Your task to perform on an android device: stop showing notifications on the lock screen Image 0: 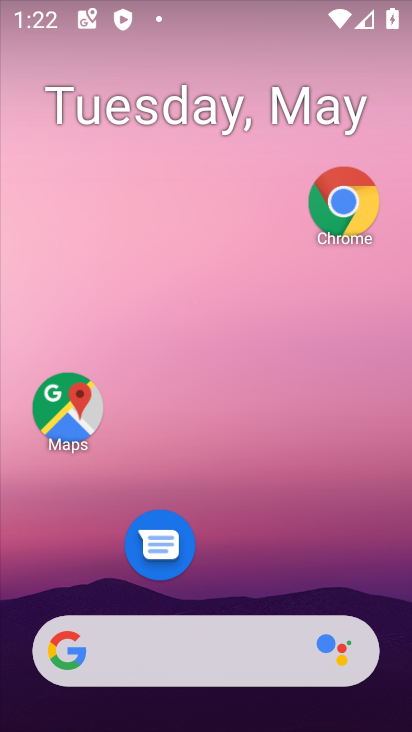
Step 0: click (403, 262)
Your task to perform on an android device: stop showing notifications on the lock screen Image 1: 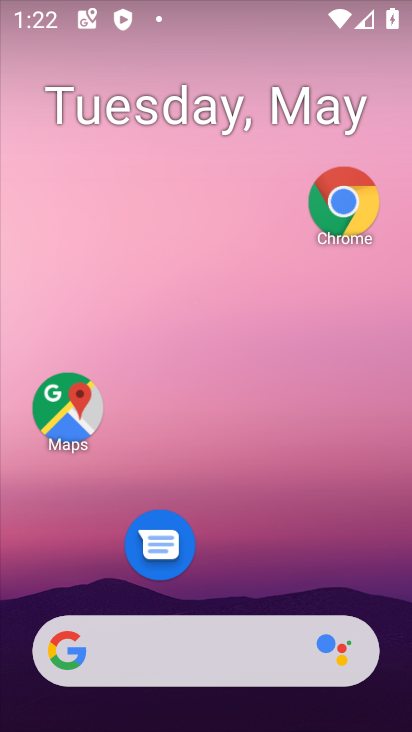
Step 1: drag from (213, 559) to (203, 10)
Your task to perform on an android device: stop showing notifications on the lock screen Image 2: 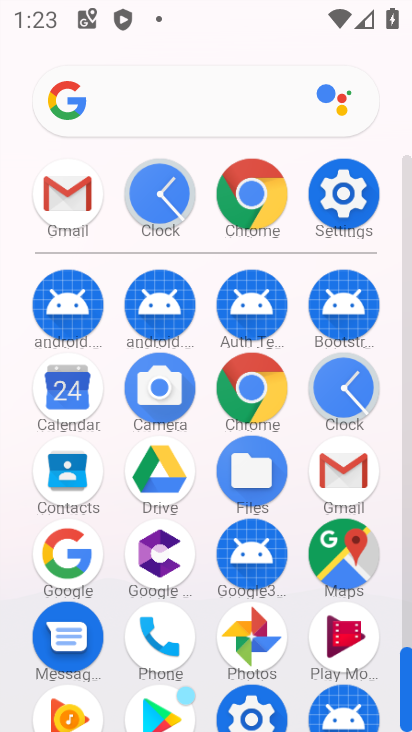
Step 2: click (348, 184)
Your task to perform on an android device: stop showing notifications on the lock screen Image 3: 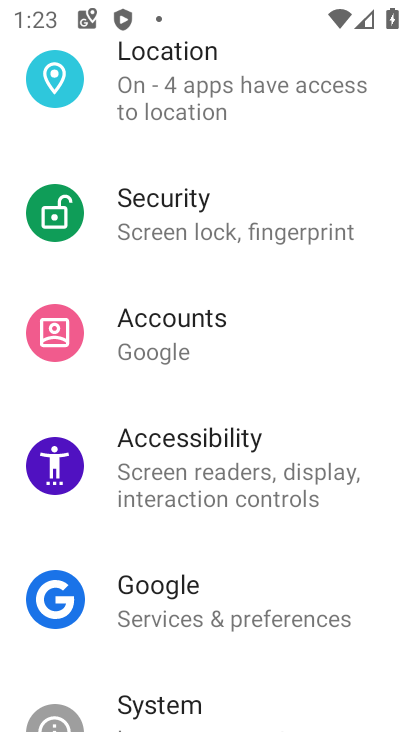
Step 3: drag from (197, 135) to (255, 695)
Your task to perform on an android device: stop showing notifications on the lock screen Image 4: 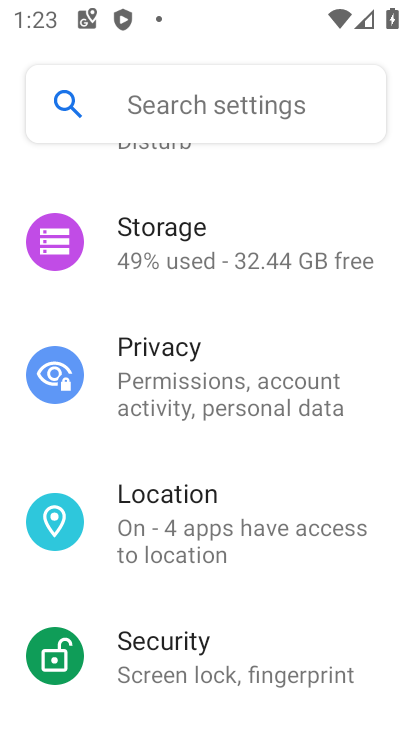
Step 4: drag from (159, 202) to (211, 649)
Your task to perform on an android device: stop showing notifications on the lock screen Image 5: 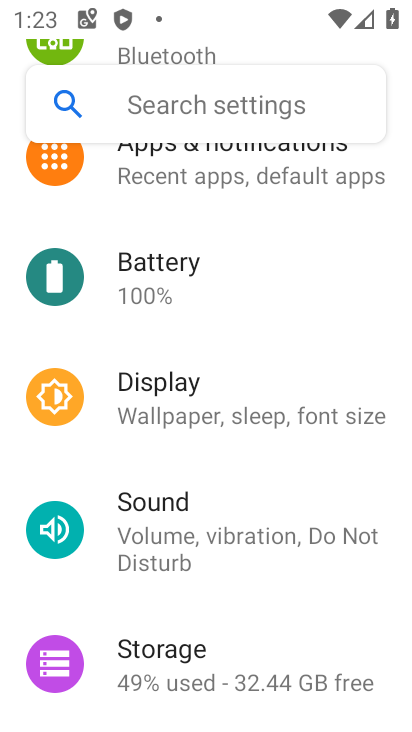
Step 5: drag from (166, 215) to (173, 638)
Your task to perform on an android device: stop showing notifications on the lock screen Image 6: 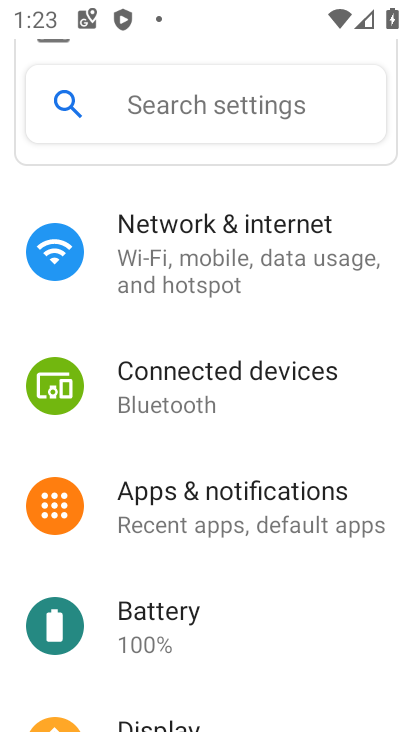
Step 6: drag from (131, 195) to (183, 639)
Your task to perform on an android device: stop showing notifications on the lock screen Image 7: 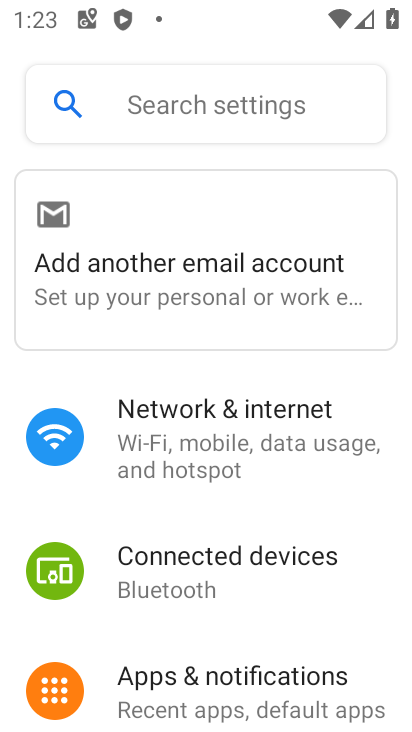
Step 7: click (160, 670)
Your task to perform on an android device: stop showing notifications on the lock screen Image 8: 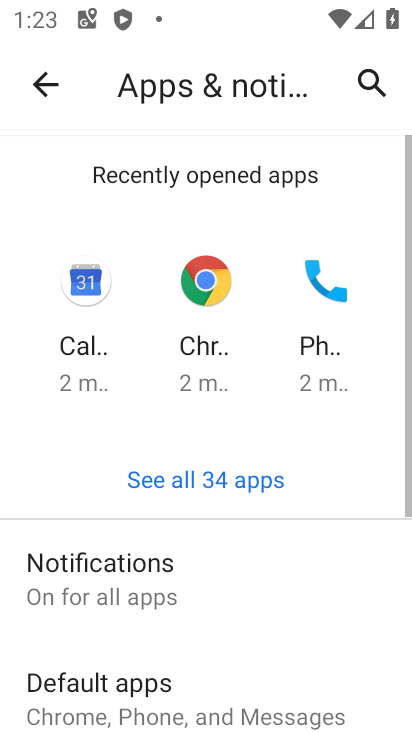
Step 8: click (131, 588)
Your task to perform on an android device: stop showing notifications on the lock screen Image 9: 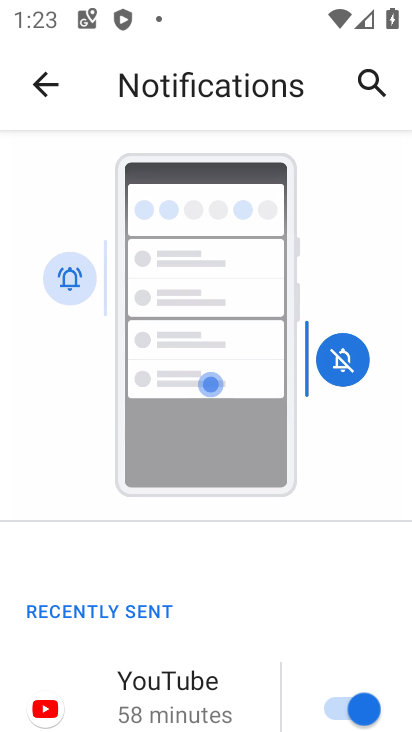
Step 9: drag from (209, 613) to (231, 139)
Your task to perform on an android device: stop showing notifications on the lock screen Image 10: 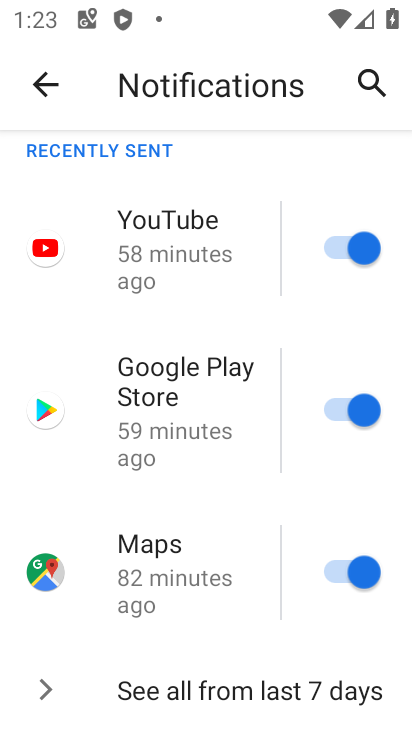
Step 10: drag from (142, 604) to (209, 143)
Your task to perform on an android device: stop showing notifications on the lock screen Image 11: 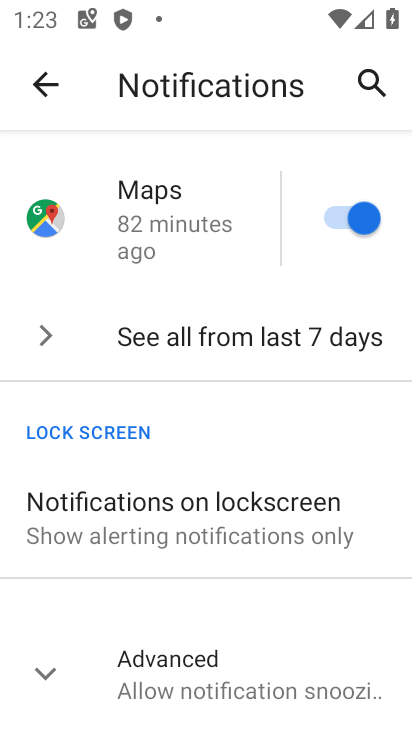
Step 11: click (186, 506)
Your task to perform on an android device: stop showing notifications on the lock screen Image 12: 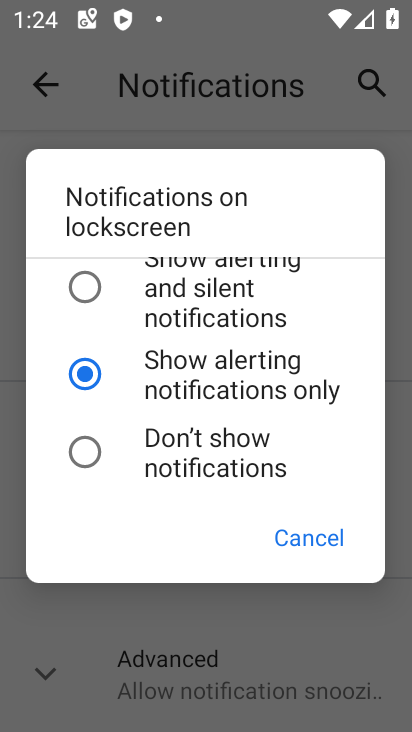
Step 12: click (174, 450)
Your task to perform on an android device: stop showing notifications on the lock screen Image 13: 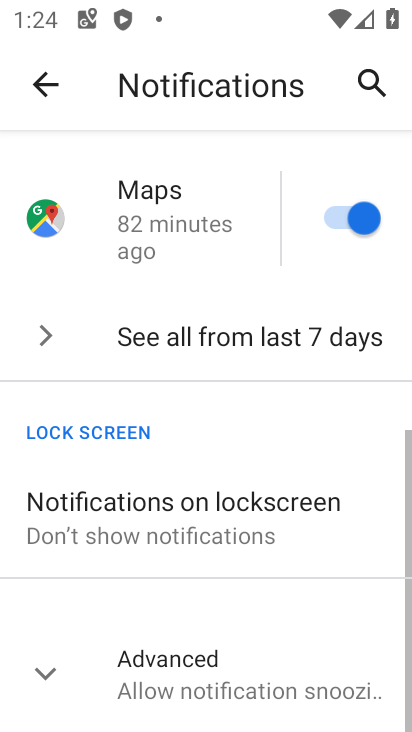
Step 13: task complete